Your task to perform on an android device: delete browsing data in the chrome app Image 0: 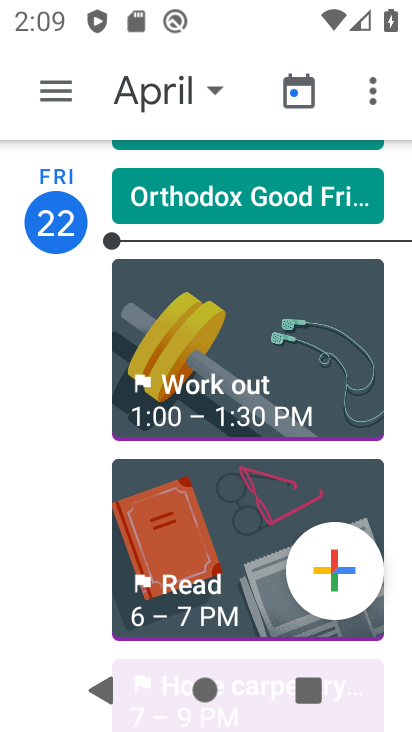
Step 0: press home button
Your task to perform on an android device: delete browsing data in the chrome app Image 1: 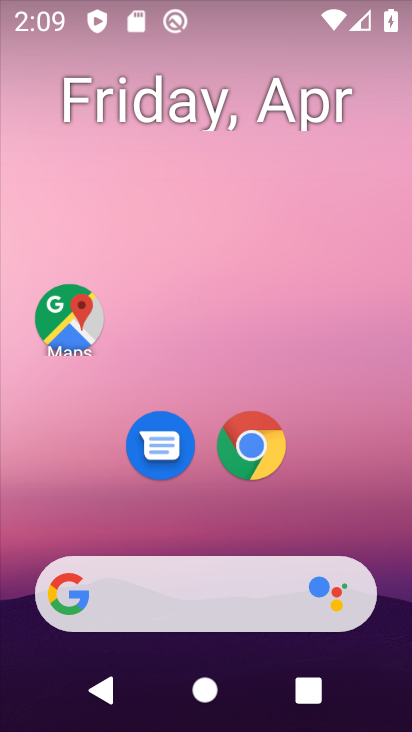
Step 1: click (253, 444)
Your task to perform on an android device: delete browsing data in the chrome app Image 2: 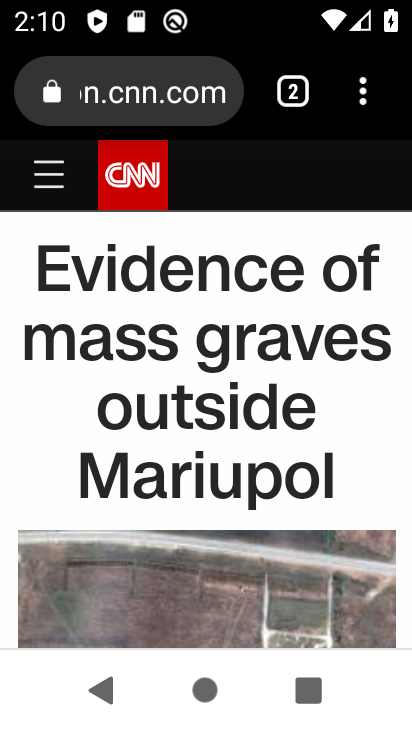
Step 2: click (372, 94)
Your task to perform on an android device: delete browsing data in the chrome app Image 3: 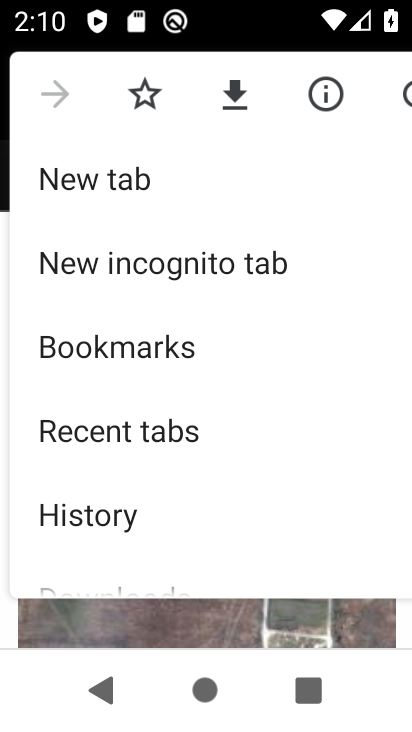
Step 3: drag from (222, 467) to (278, 307)
Your task to perform on an android device: delete browsing data in the chrome app Image 4: 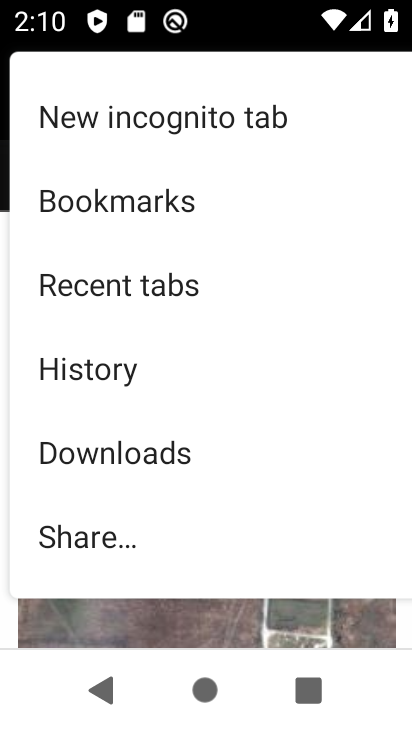
Step 4: drag from (217, 408) to (273, 291)
Your task to perform on an android device: delete browsing data in the chrome app Image 5: 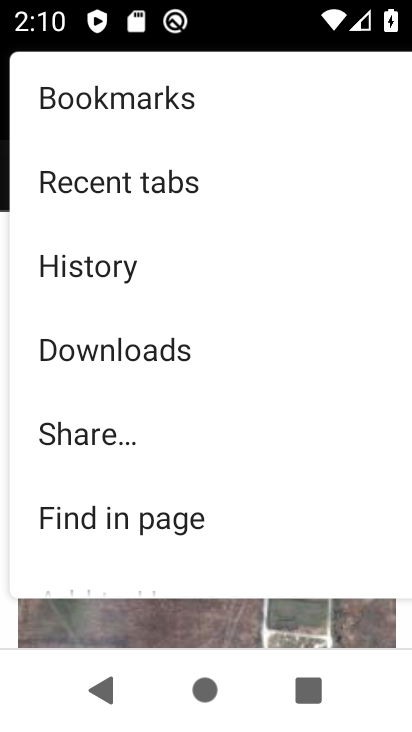
Step 5: drag from (199, 423) to (273, 307)
Your task to perform on an android device: delete browsing data in the chrome app Image 6: 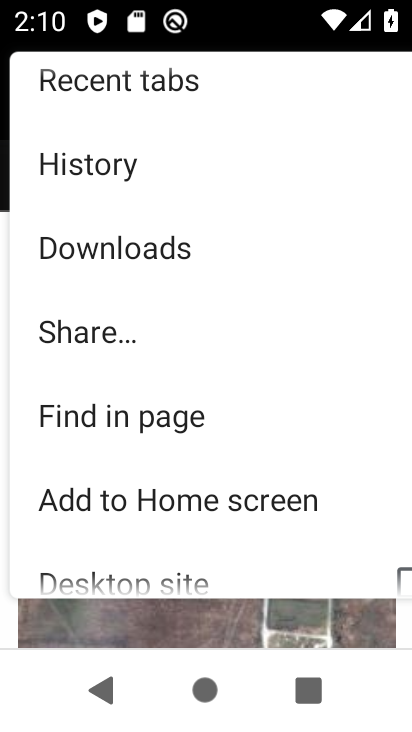
Step 6: drag from (237, 434) to (298, 350)
Your task to perform on an android device: delete browsing data in the chrome app Image 7: 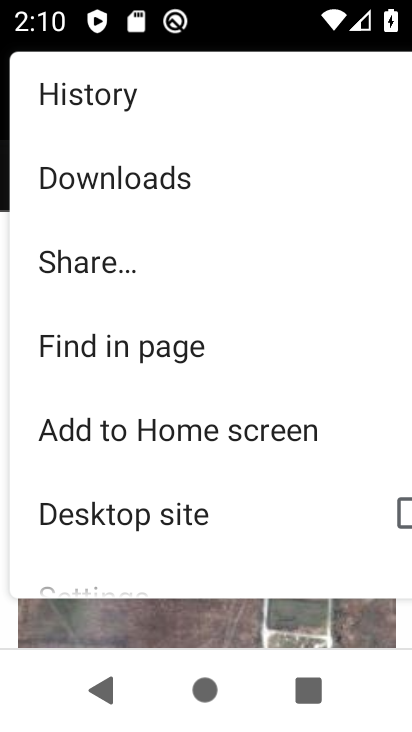
Step 7: drag from (215, 477) to (290, 341)
Your task to perform on an android device: delete browsing data in the chrome app Image 8: 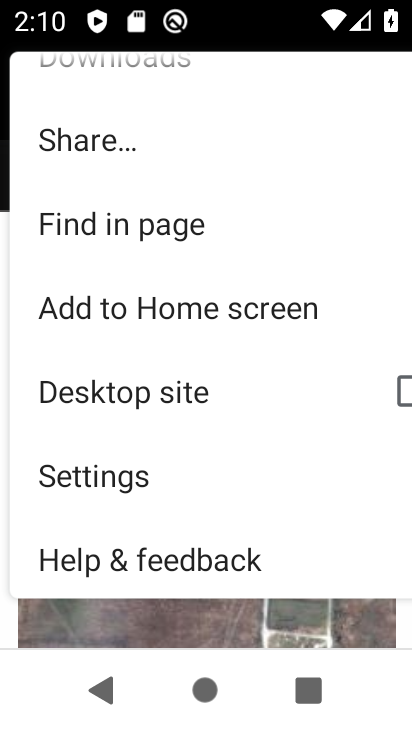
Step 8: click (128, 476)
Your task to perform on an android device: delete browsing data in the chrome app Image 9: 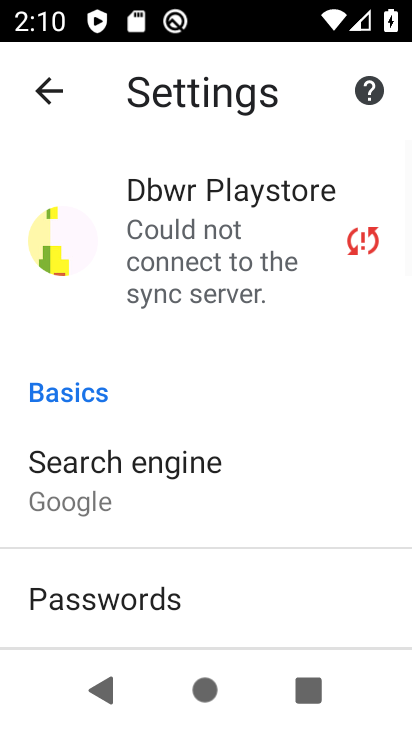
Step 9: drag from (189, 494) to (260, 387)
Your task to perform on an android device: delete browsing data in the chrome app Image 10: 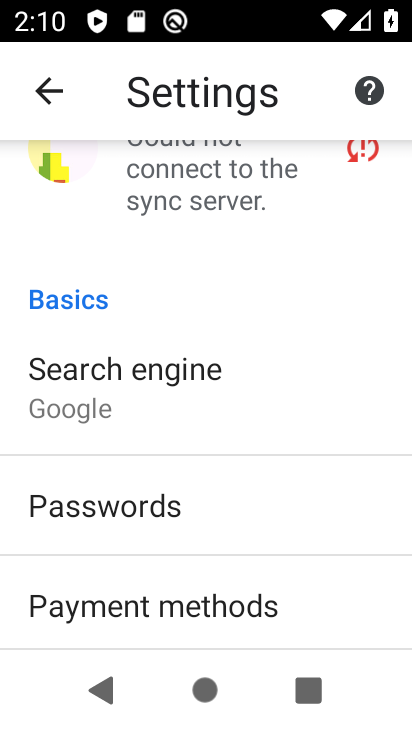
Step 10: drag from (199, 513) to (256, 328)
Your task to perform on an android device: delete browsing data in the chrome app Image 11: 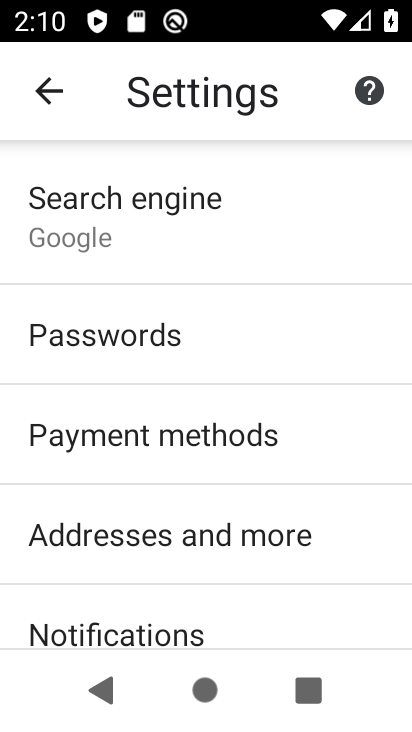
Step 11: drag from (155, 581) to (207, 391)
Your task to perform on an android device: delete browsing data in the chrome app Image 12: 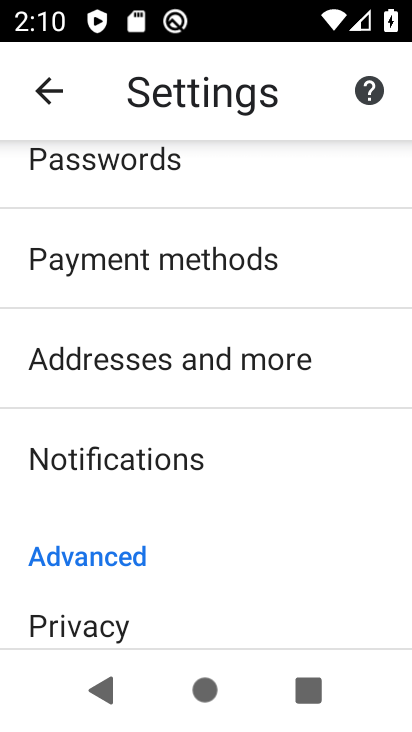
Step 12: drag from (194, 548) to (251, 388)
Your task to perform on an android device: delete browsing data in the chrome app Image 13: 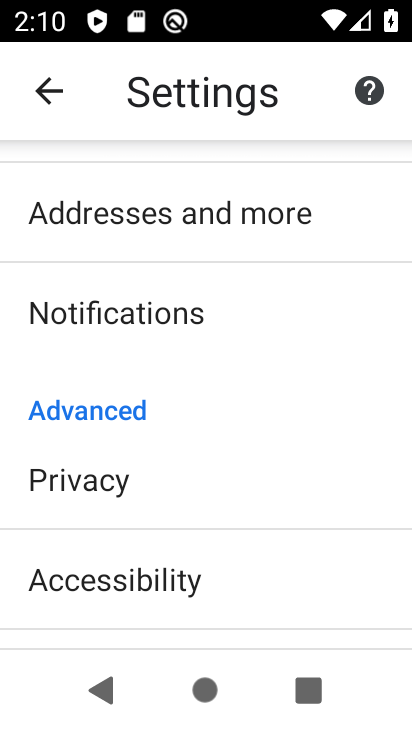
Step 13: click (105, 485)
Your task to perform on an android device: delete browsing data in the chrome app Image 14: 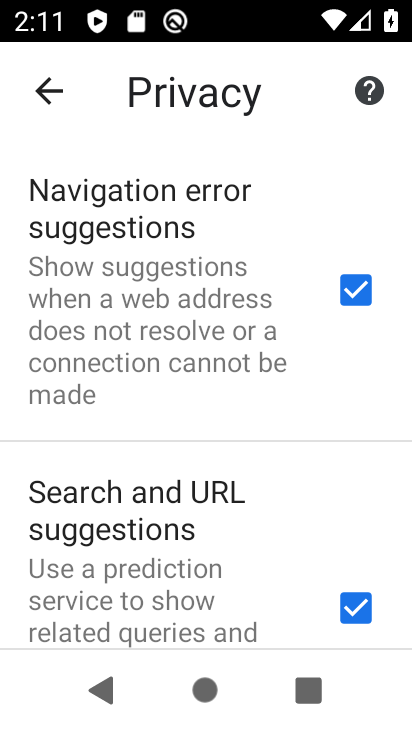
Step 14: drag from (96, 597) to (176, 341)
Your task to perform on an android device: delete browsing data in the chrome app Image 15: 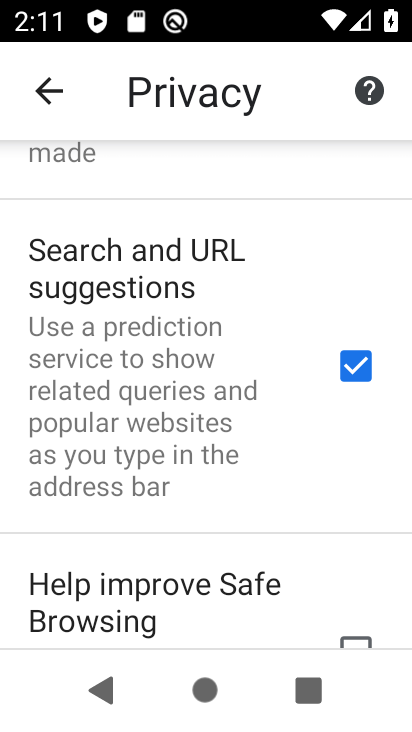
Step 15: drag from (151, 545) to (228, 364)
Your task to perform on an android device: delete browsing data in the chrome app Image 16: 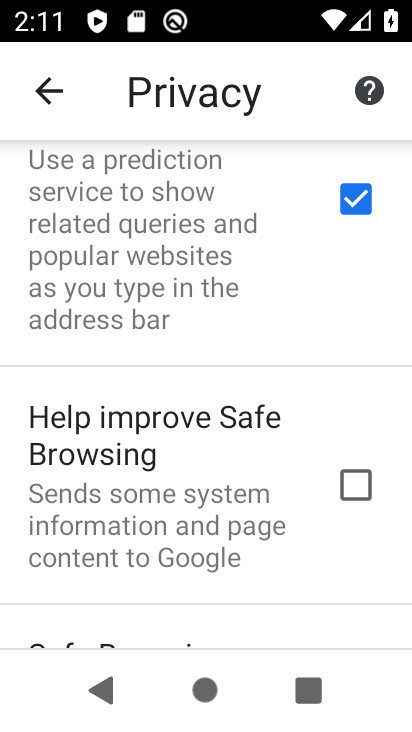
Step 16: drag from (158, 600) to (249, 359)
Your task to perform on an android device: delete browsing data in the chrome app Image 17: 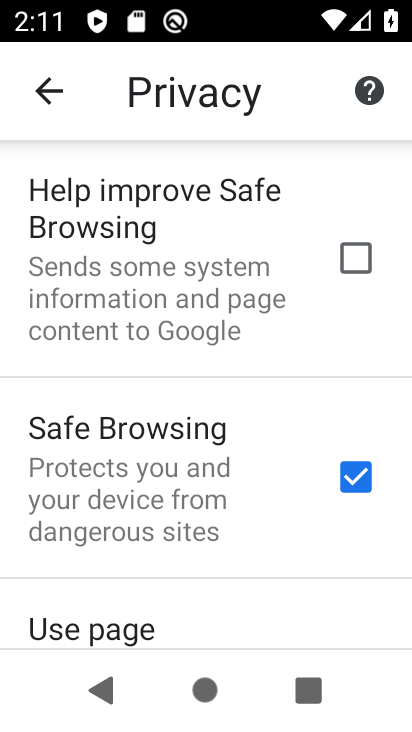
Step 17: drag from (196, 571) to (255, 323)
Your task to perform on an android device: delete browsing data in the chrome app Image 18: 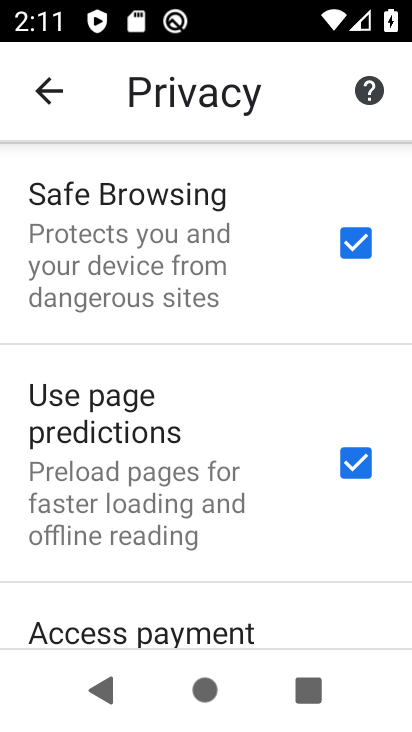
Step 18: drag from (169, 583) to (230, 378)
Your task to perform on an android device: delete browsing data in the chrome app Image 19: 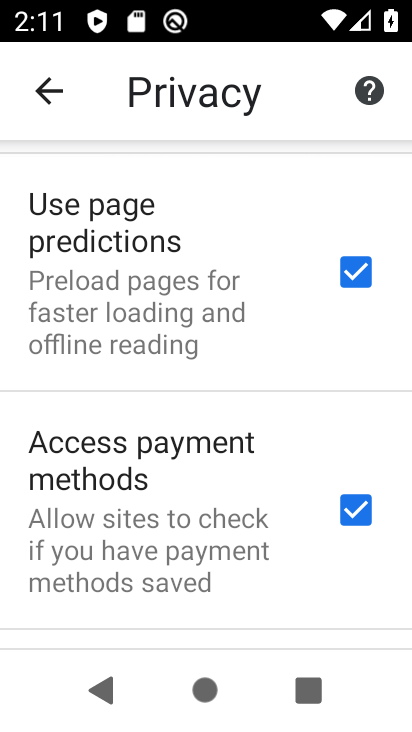
Step 19: drag from (150, 619) to (238, 362)
Your task to perform on an android device: delete browsing data in the chrome app Image 20: 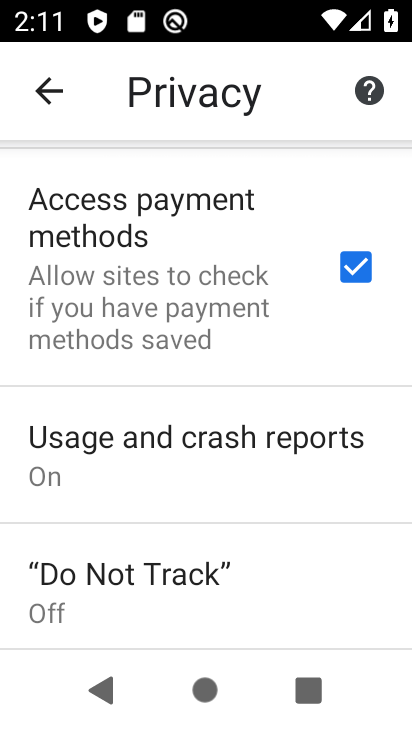
Step 20: drag from (194, 510) to (258, 309)
Your task to perform on an android device: delete browsing data in the chrome app Image 21: 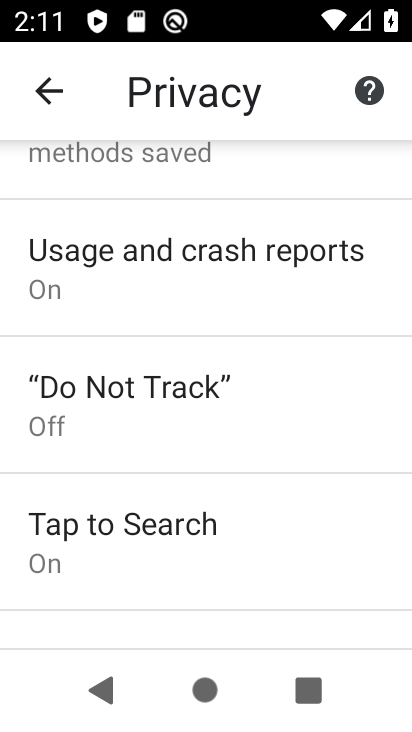
Step 21: drag from (180, 552) to (270, 369)
Your task to perform on an android device: delete browsing data in the chrome app Image 22: 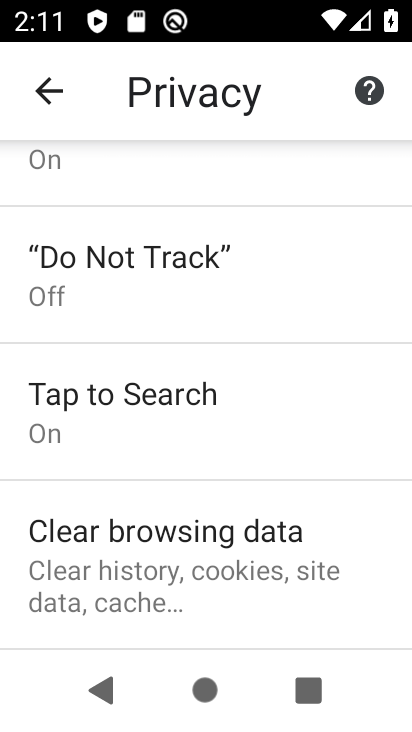
Step 22: click (194, 558)
Your task to perform on an android device: delete browsing data in the chrome app Image 23: 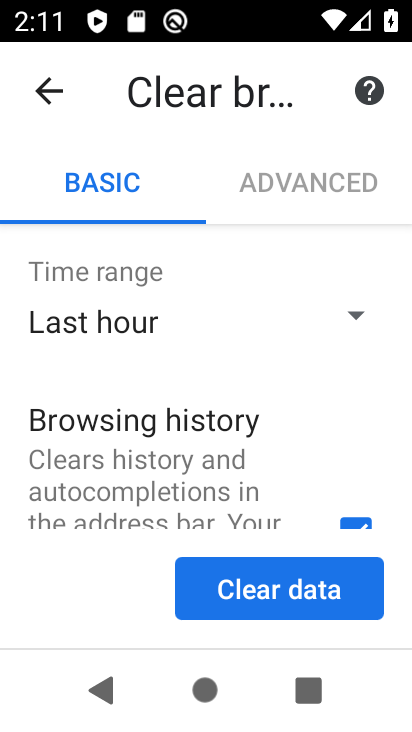
Step 23: click (244, 579)
Your task to perform on an android device: delete browsing data in the chrome app Image 24: 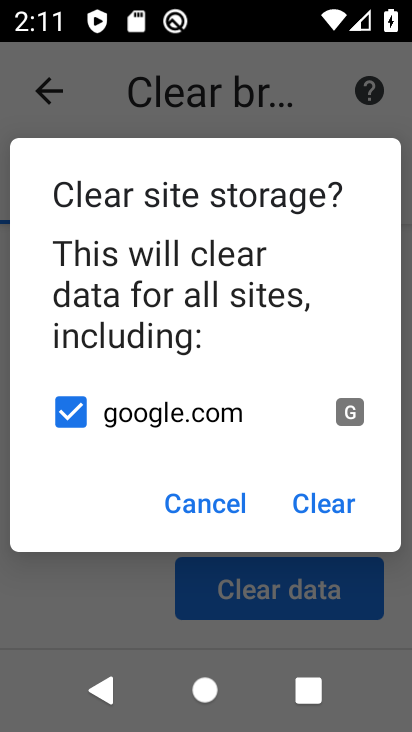
Step 24: click (322, 492)
Your task to perform on an android device: delete browsing data in the chrome app Image 25: 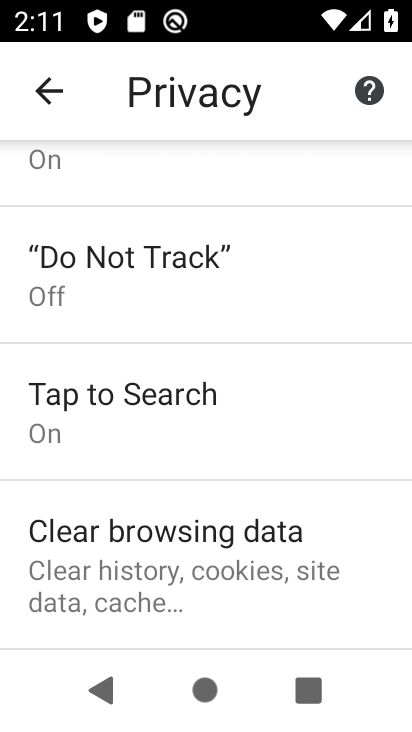
Step 25: task complete